Your task to perform on an android device: What's the weather today? Image 0: 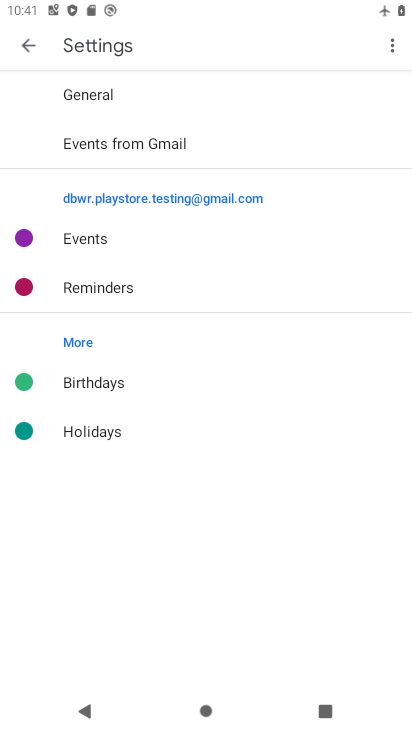
Step 0: press home button
Your task to perform on an android device: What's the weather today? Image 1: 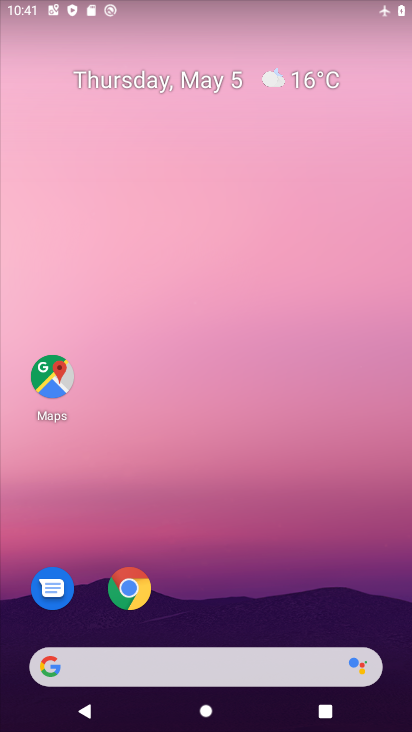
Step 1: drag from (217, 610) to (180, 238)
Your task to perform on an android device: What's the weather today? Image 2: 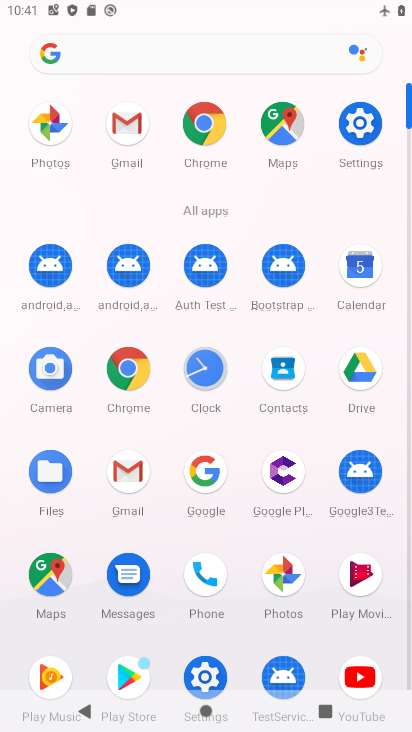
Step 2: click (207, 136)
Your task to perform on an android device: What's the weather today? Image 3: 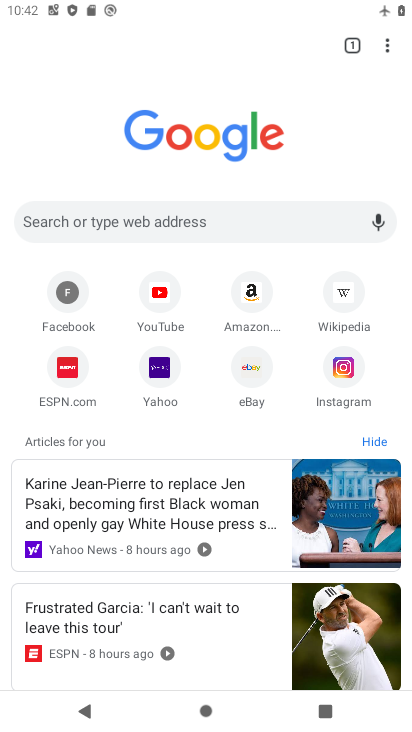
Step 3: click (202, 221)
Your task to perform on an android device: What's the weather today? Image 4: 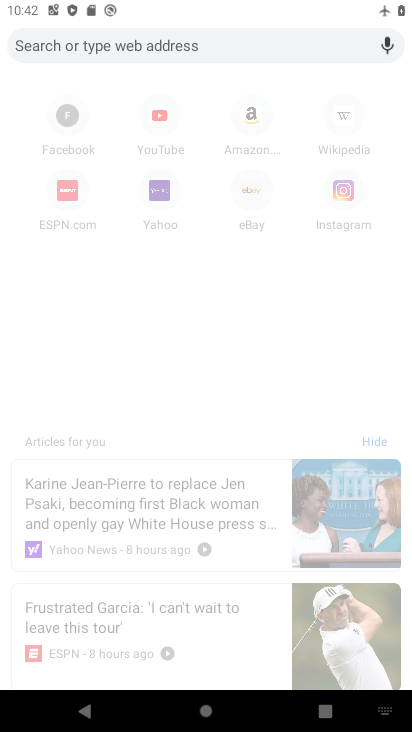
Step 4: drag from (199, 705) to (312, 730)
Your task to perform on an android device: What's the weather today? Image 5: 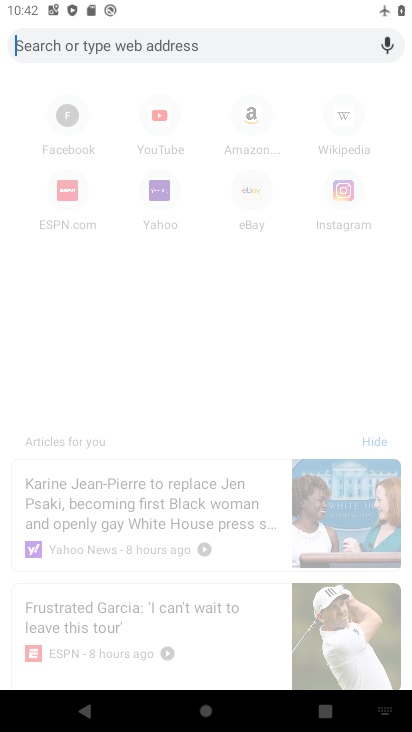
Step 5: type "What's the weather today?"
Your task to perform on an android device: What's the weather today? Image 6: 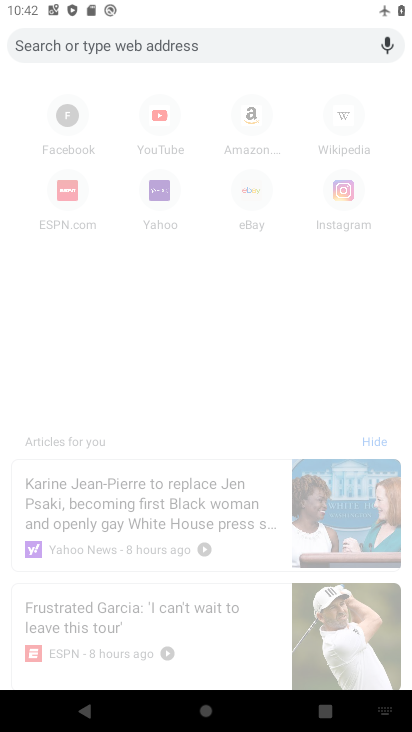
Step 6: drag from (312, 730) to (392, 252)
Your task to perform on an android device: What's the weather today? Image 7: 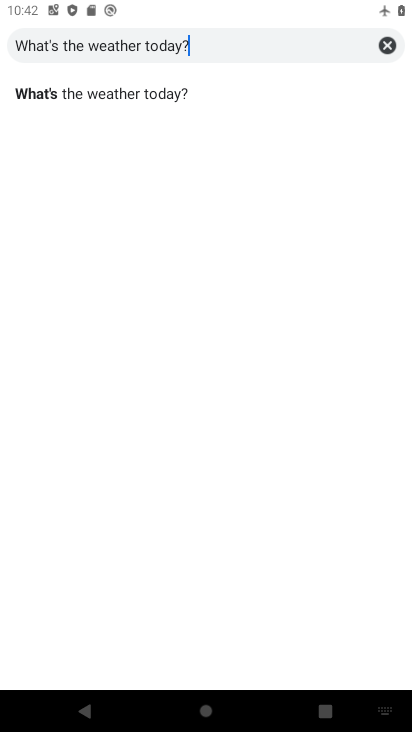
Step 7: click (169, 96)
Your task to perform on an android device: What's the weather today? Image 8: 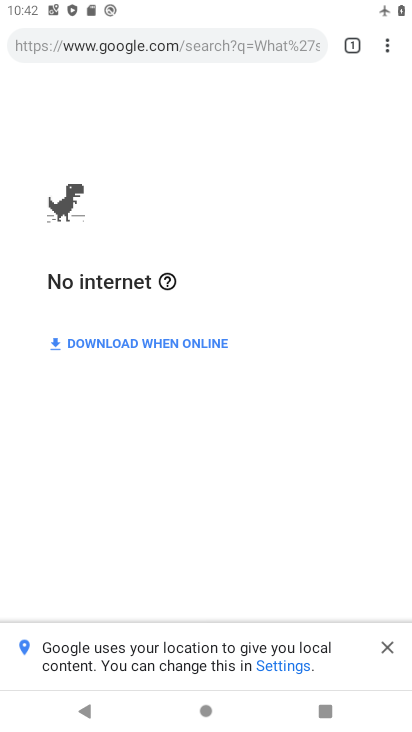
Step 8: task complete